Your task to perform on an android device: set an alarm Image 0: 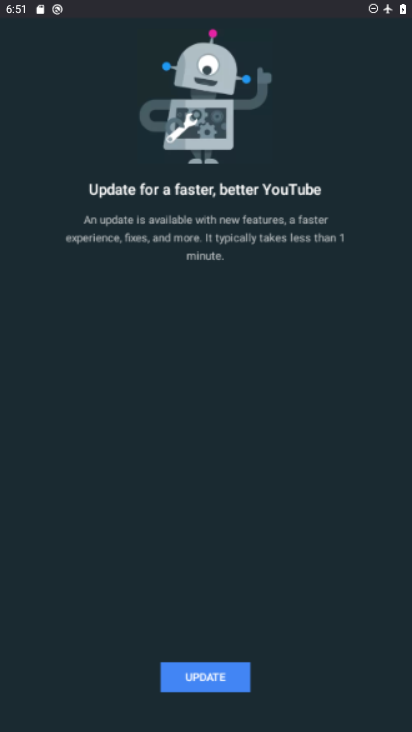
Step 0: drag from (280, 630) to (267, 238)
Your task to perform on an android device: set an alarm Image 1: 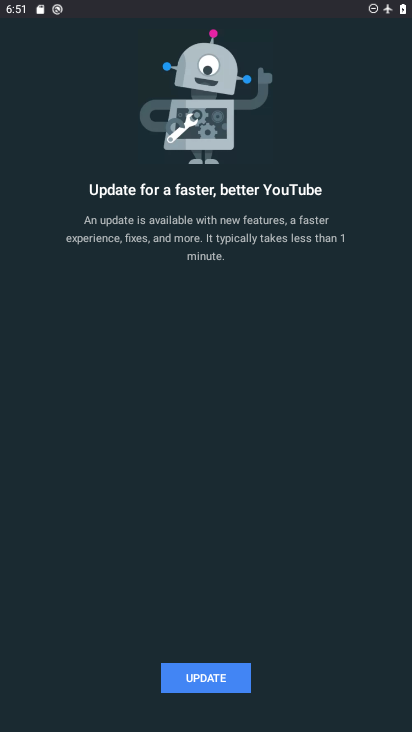
Step 1: press back button
Your task to perform on an android device: set an alarm Image 2: 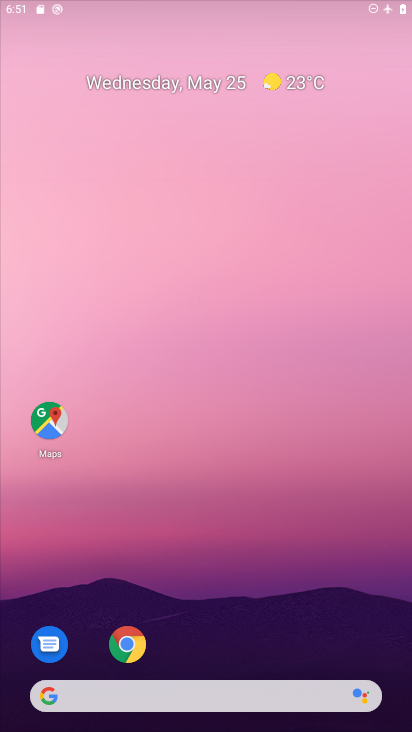
Step 2: drag from (321, 636) to (314, 72)
Your task to perform on an android device: set an alarm Image 3: 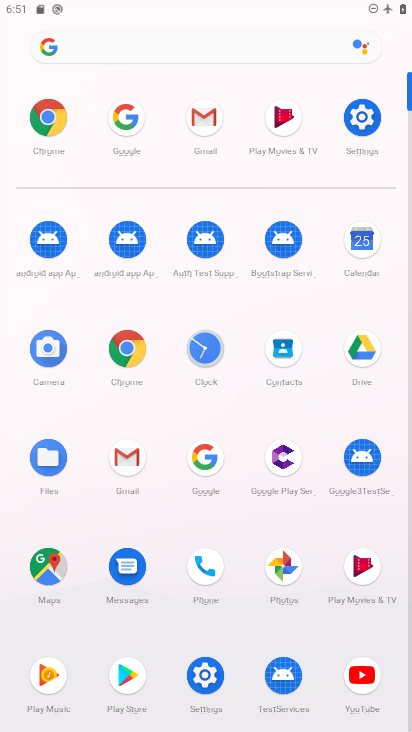
Step 3: click (206, 356)
Your task to perform on an android device: set an alarm Image 4: 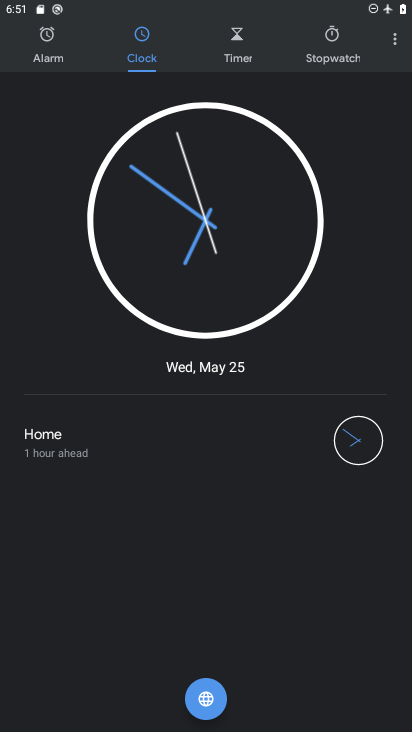
Step 4: click (47, 51)
Your task to perform on an android device: set an alarm Image 5: 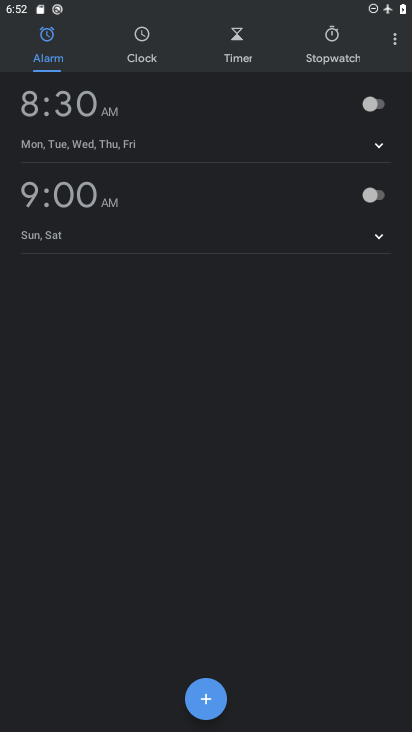
Step 5: click (381, 112)
Your task to perform on an android device: set an alarm Image 6: 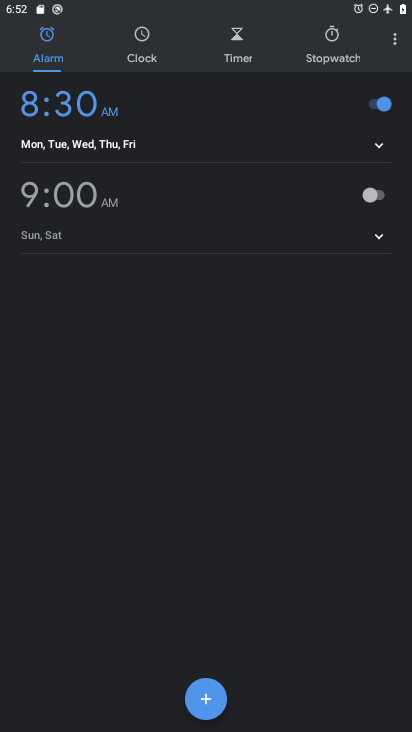
Step 6: task complete